Your task to perform on an android device: Search for razer blade on ebay, select the first entry, and add it to the cart. Image 0: 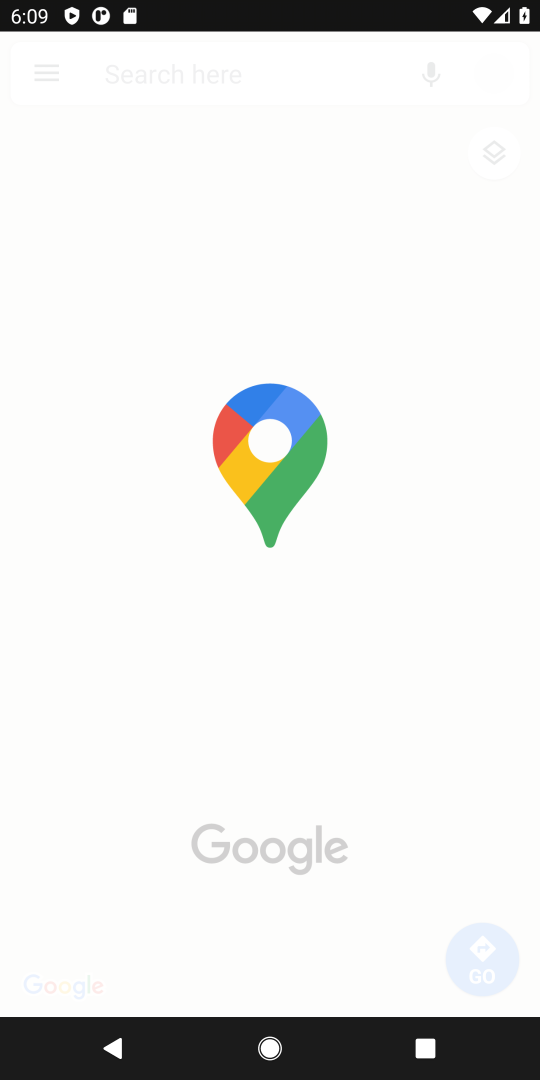
Step 0: click (450, 788)
Your task to perform on an android device: Search for razer blade on ebay, select the first entry, and add it to the cart. Image 1: 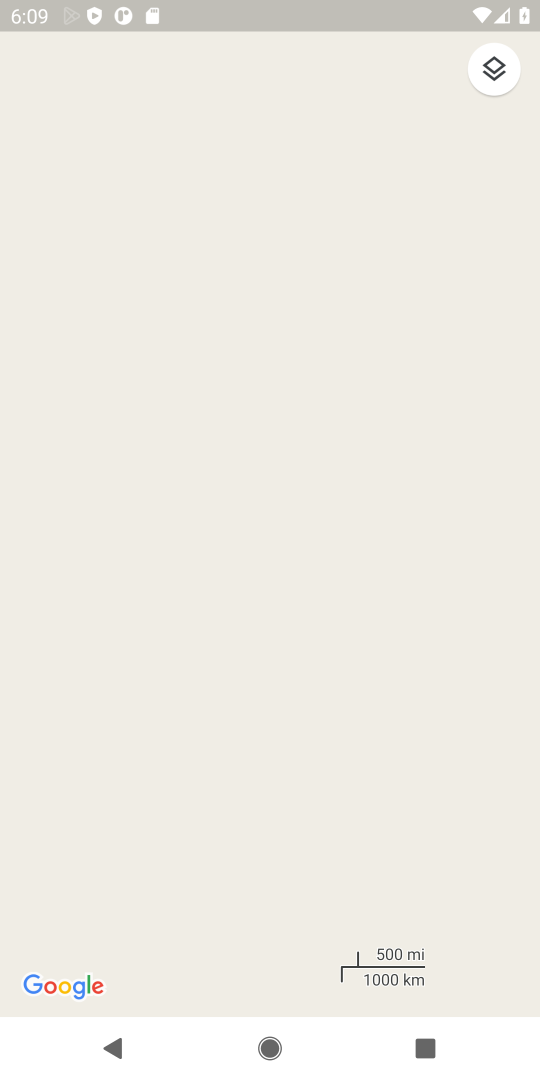
Step 1: press home button
Your task to perform on an android device: Search for razer blade on ebay, select the first entry, and add it to the cart. Image 2: 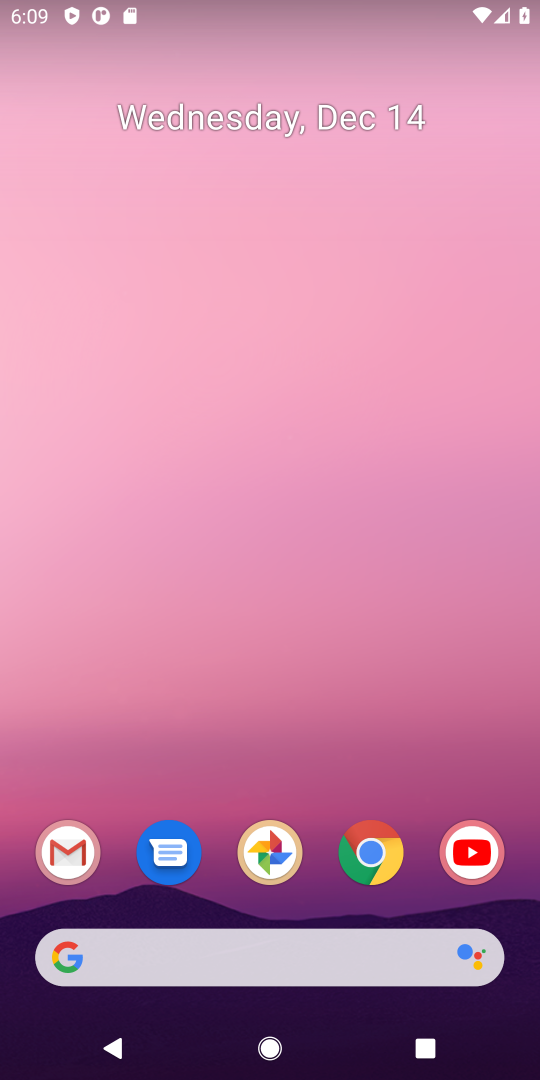
Step 2: click (378, 860)
Your task to perform on an android device: Search for razer blade on ebay, select the first entry, and add it to the cart. Image 3: 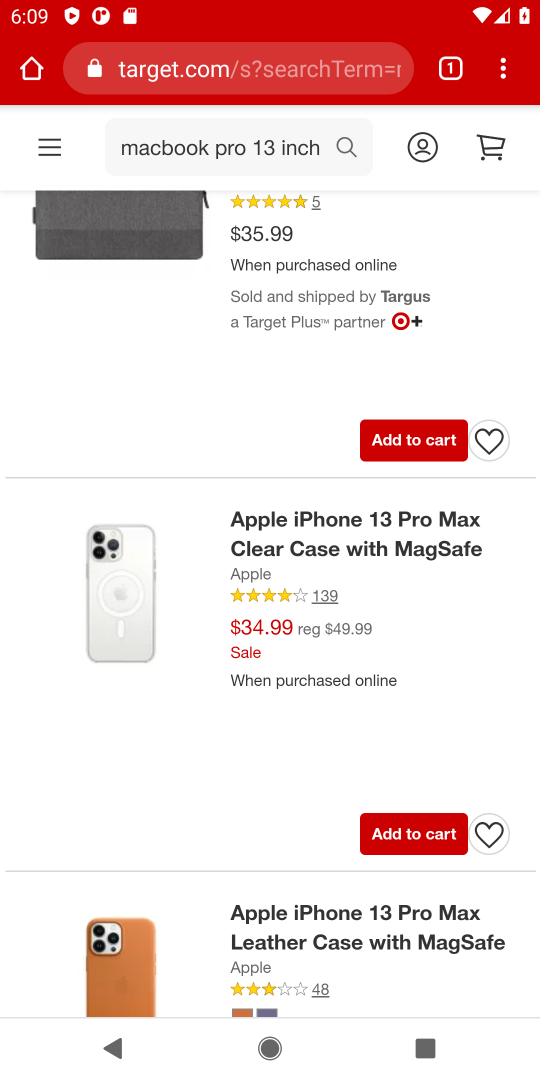
Step 3: click (450, 79)
Your task to perform on an android device: Search for razer blade on ebay, select the first entry, and add it to the cart. Image 4: 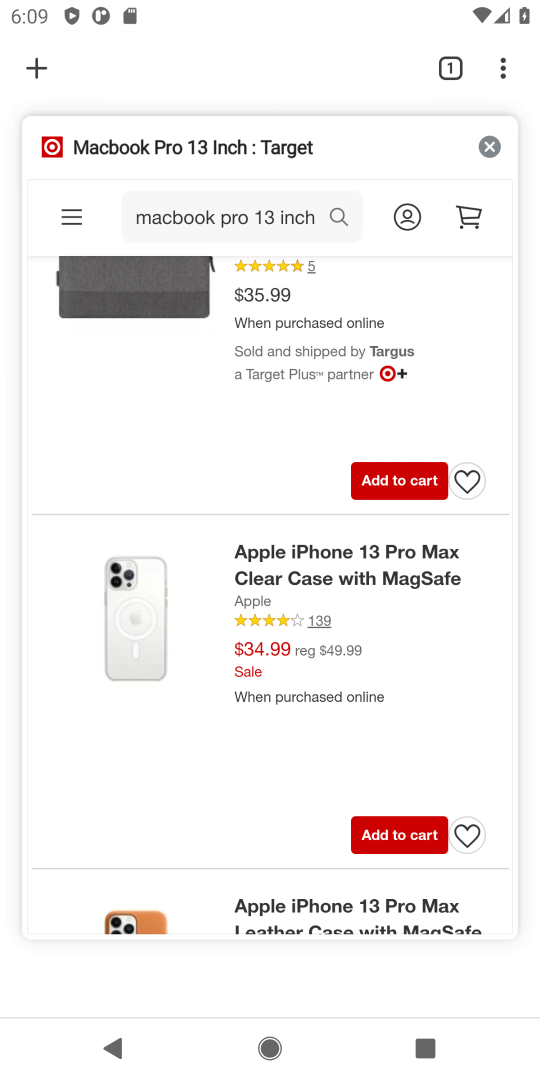
Step 4: click (30, 70)
Your task to perform on an android device: Search for razer blade on ebay, select the first entry, and add it to the cart. Image 5: 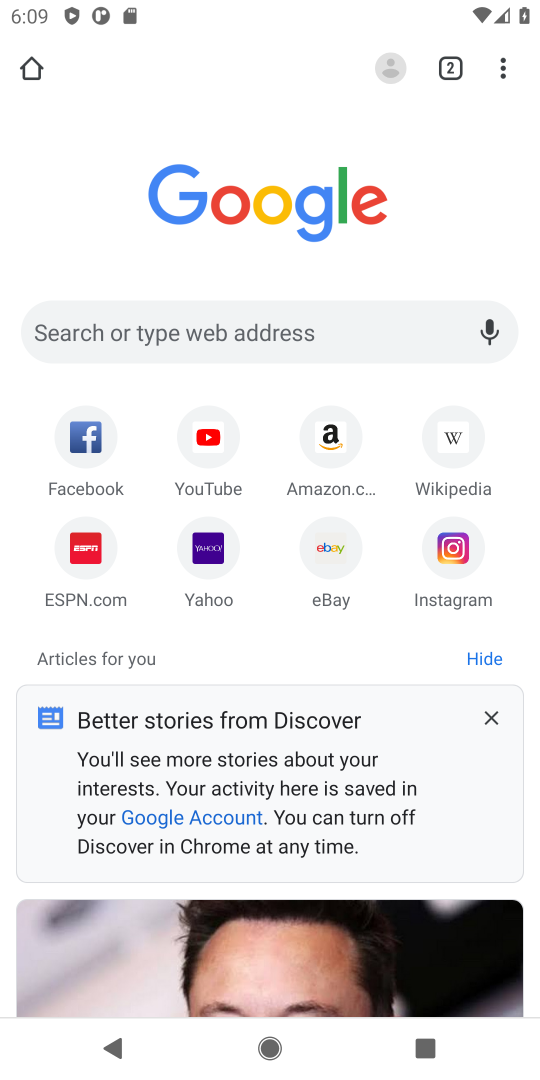
Step 5: click (192, 332)
Your task to perform on an android device: Search for razer blade on ebay, select the first entry, and add it to the cart. Image 6: 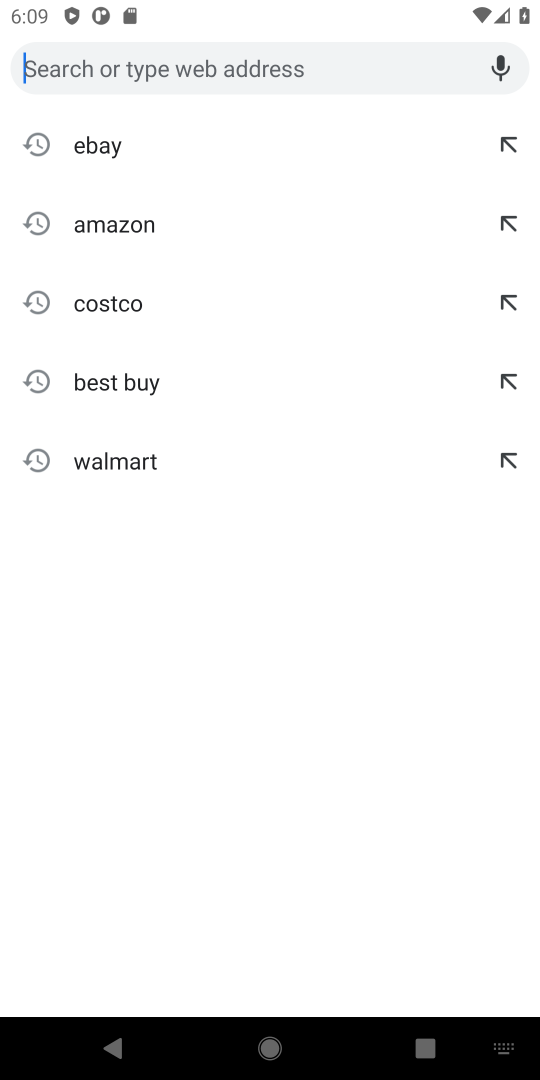
Step 6: click (104, 149)
Your task to perform on an android device: Search for razer blade on ebay, select the first entry, and add it to the cart. Image 7: 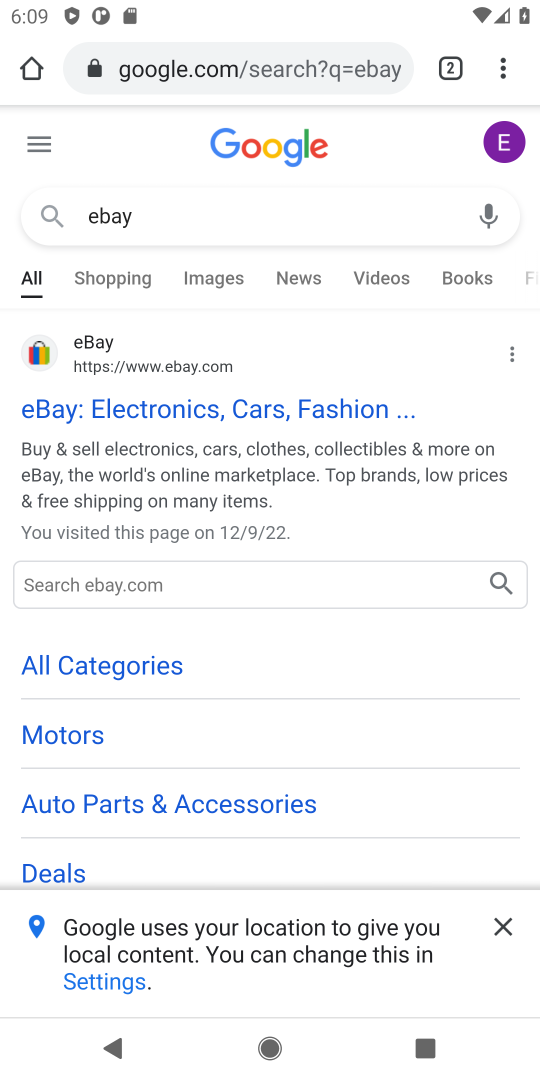
Step 7: click (109, 581)
Your task to perform on an android device: Search for razer blade on ebay, select the first entry, and add it to the cart. Image 8: 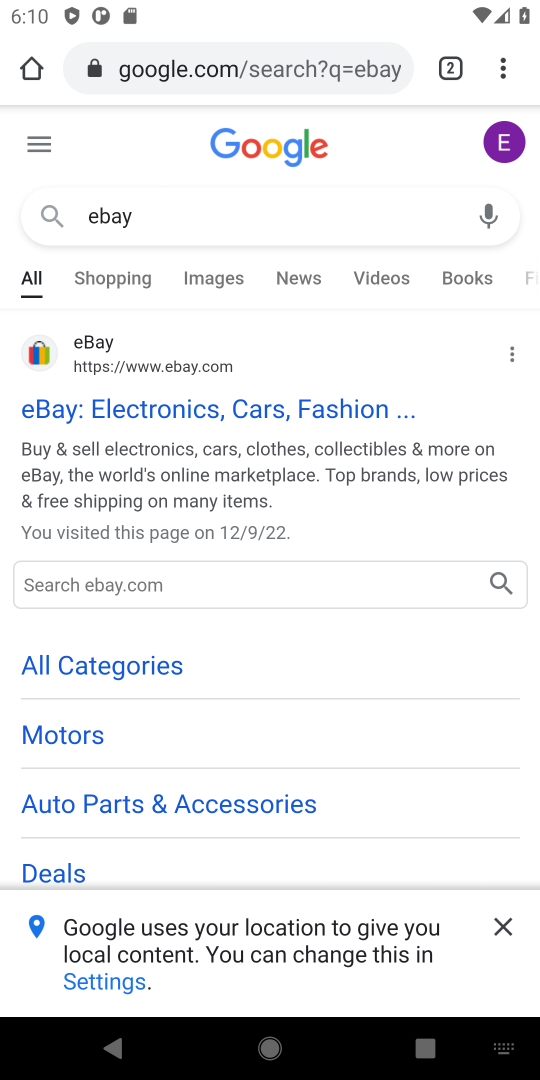
Step 8: type "razer blade "
Your task to perform on an android device: Search for razer blade on ebay, select the first entry, and add it to the cart. Image 9: 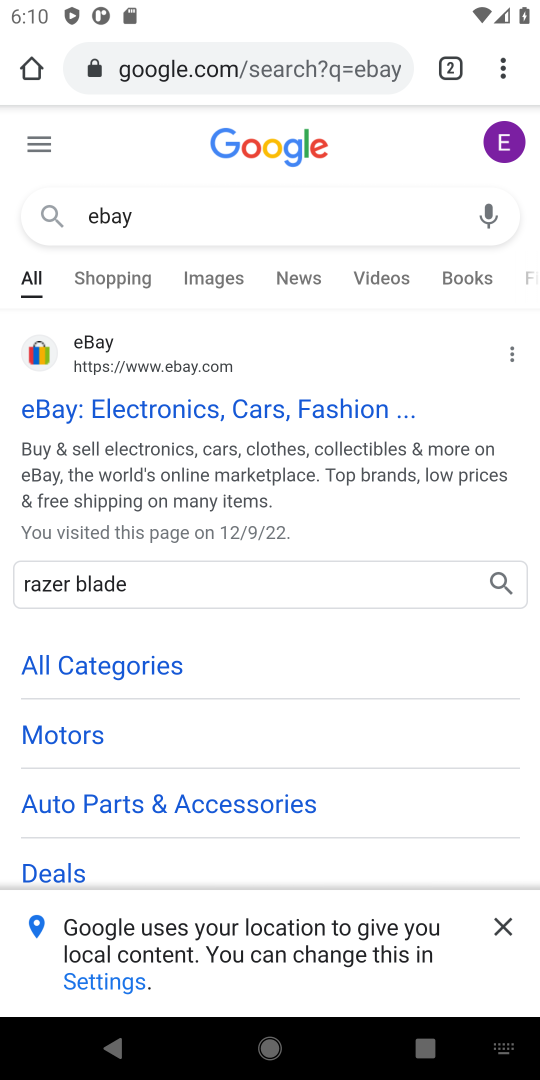
Step 9: click (499, 580)
Your task to perform on an android device: Search for razer blade on ebay, select the first entry, and add it to the cart. Image 10: 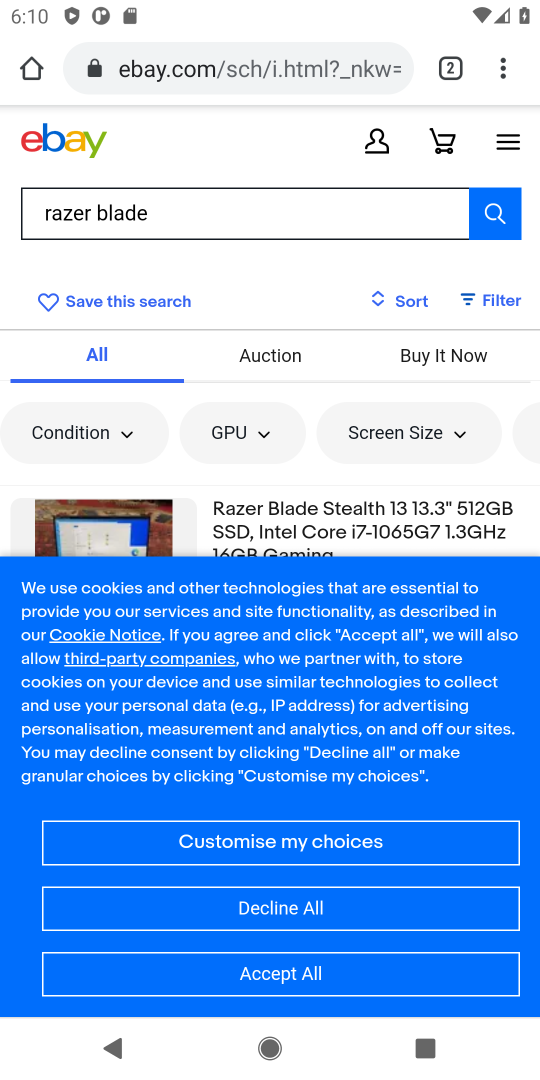
Step 10: click (291, 912)
Your task to perform on an android device: Search for razer blade on ebay, select the first entry, and add it to the cart. Image 11: 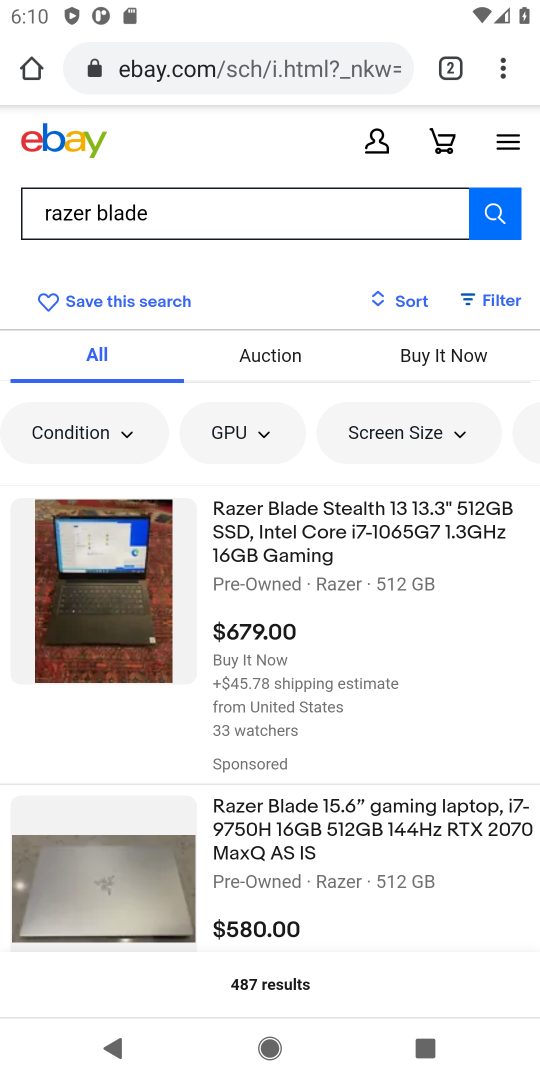
Step 11: click (474, 513)
Your task to perform on an android device: Search for razer blade on ebay, select the first entry, and add it to the cart. Image 12: 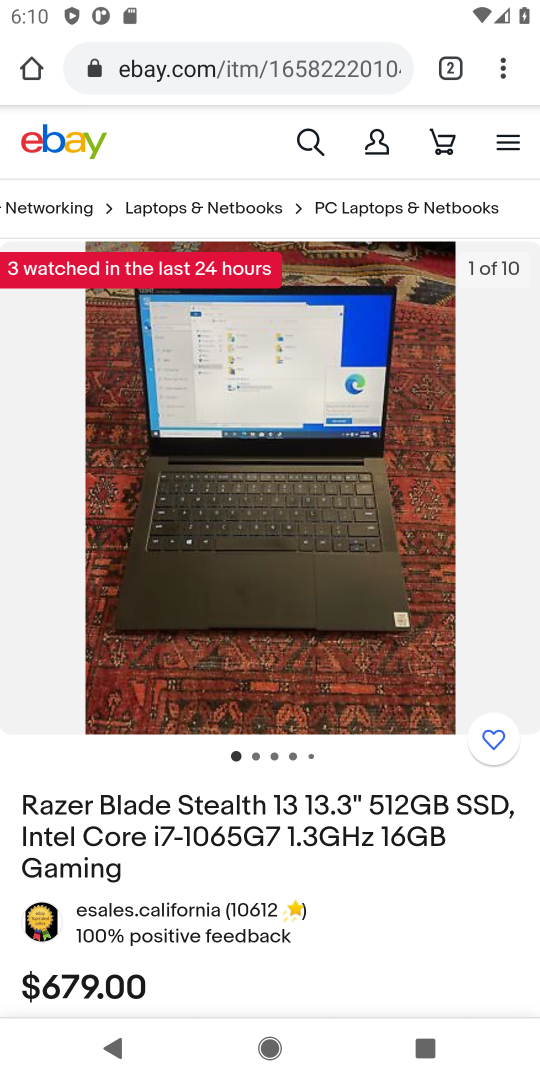
Step 12: drag from (343, 910) to (376, 213)
Your task to perform on an android device: Search for razer blade on ebay, select the first entry, and add it to the cart. Image 13: 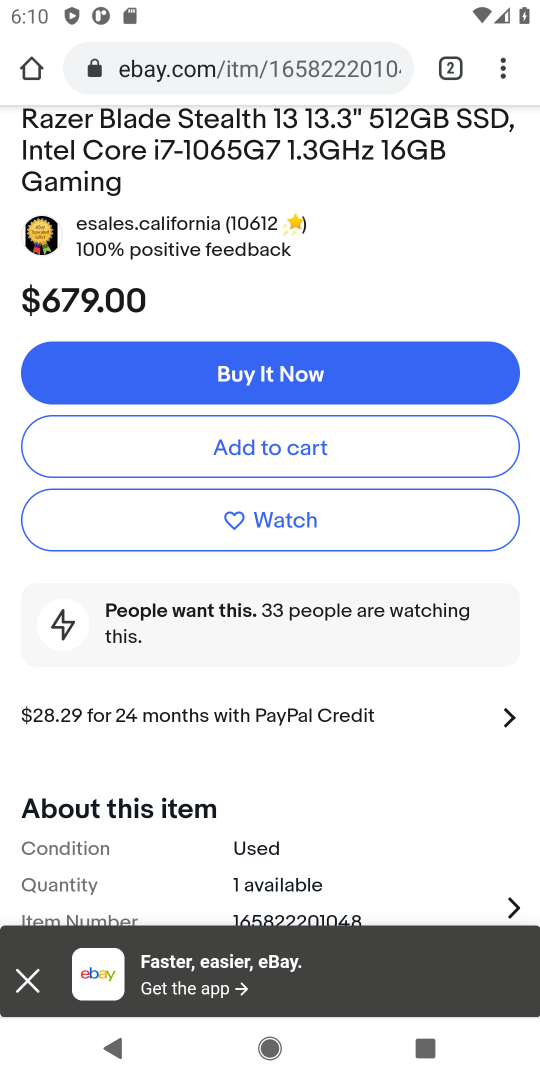
Step 13: click (272, 448)
Your task to perform on an android device: Search for razer blade on ebay, select the first entry, and add it to the cart. Image 14: 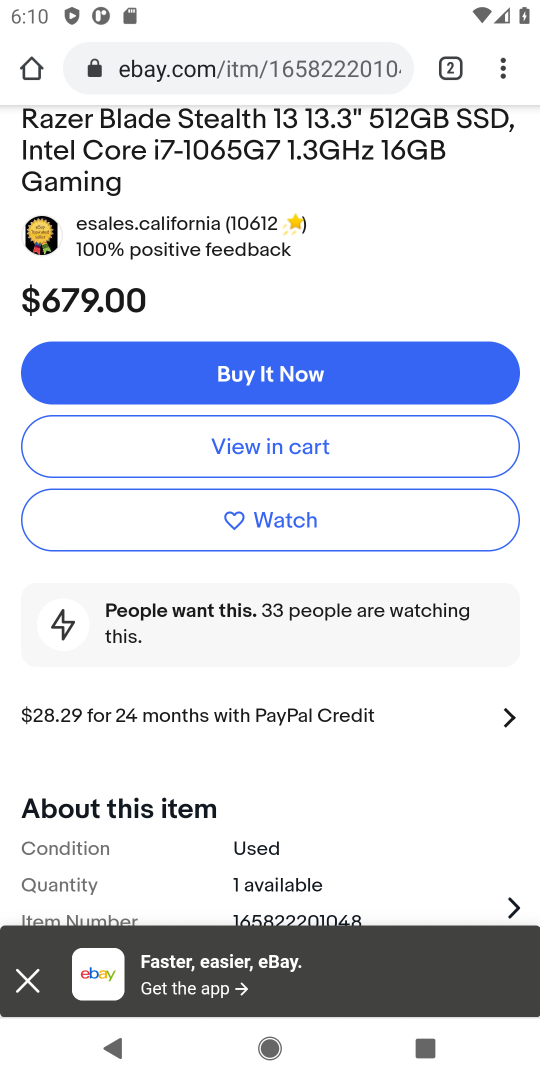
Step 14: task complete